Your task to perform on an android device: turn on airplane mode Image 0: 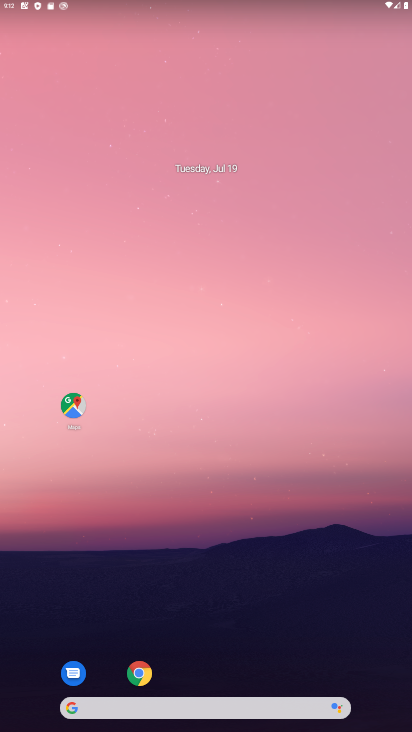
Step 0: drag from (200, 662) to (205, 127)
Your task to perform on an android device: turn on airplane mode Image 1: 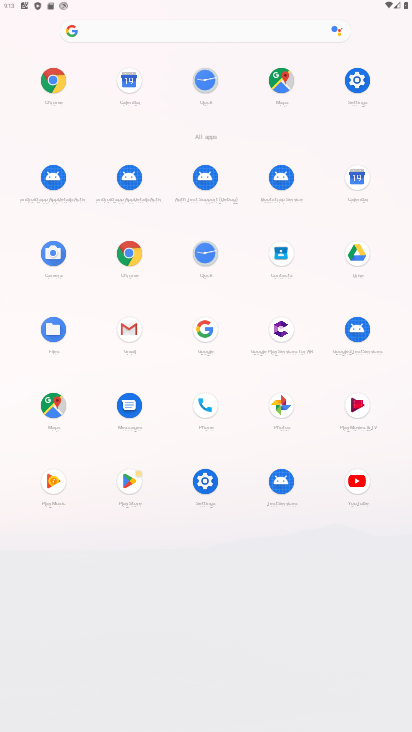
Step 1: click (332, 76)
Your task to perform on an android device: turn on airplane mode Image 2: 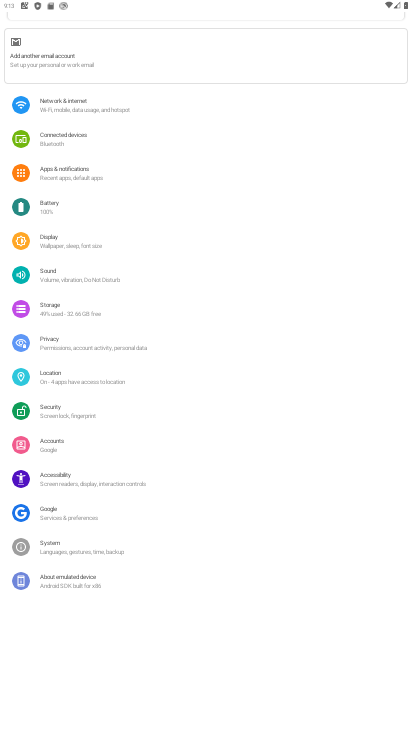
Step 2: click (94, 111)
Your task to perform on an android device: turn on airplane mode Image 3: 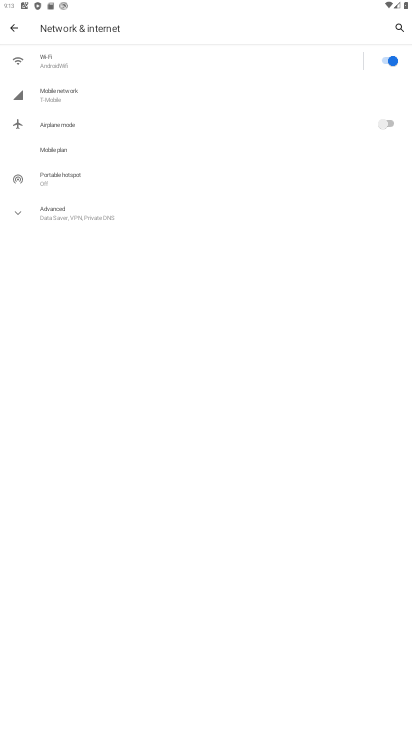
Step 3: click (395, 116)
Your task to perform on an android device: turn on airplane mode Image 4: 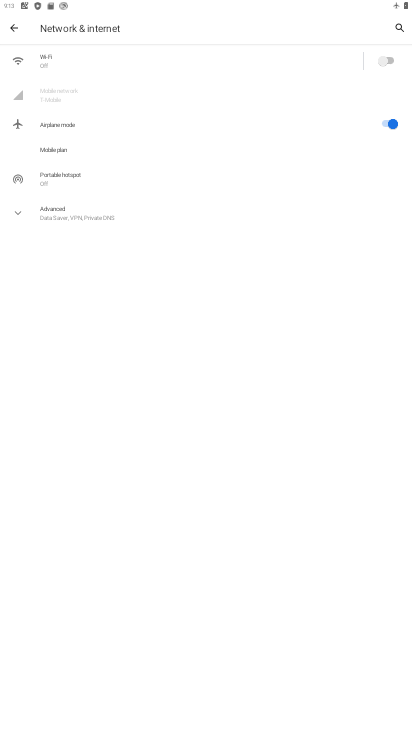
Step 4: task complete